Your task to perform on an android device: Show me productivity apps on the Play Store Image 0: 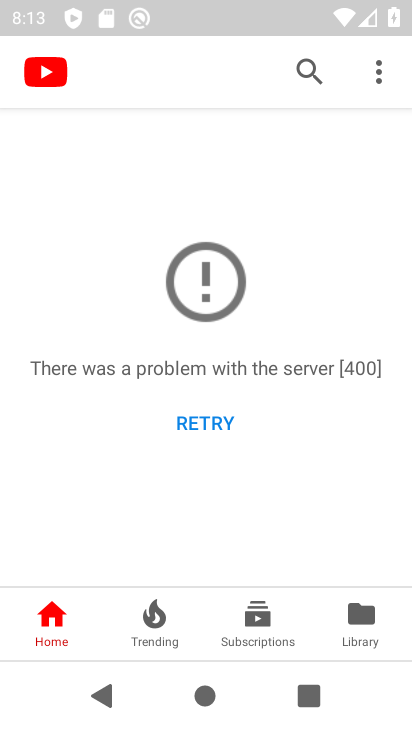
Step 0: press home button
Your task to perform on an android device: Show me productivity apps on the Play Store Image 1: 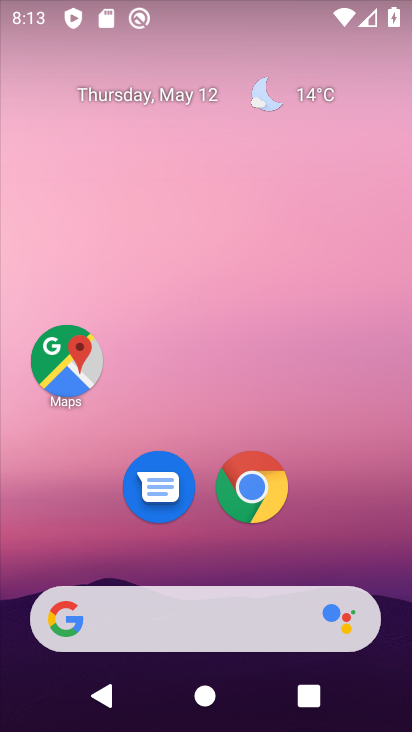
Step 1: drag from (16, 658) to (265, 104)
Your task to perform on an android device: Show me productivity apps on the Play Store Image 2: 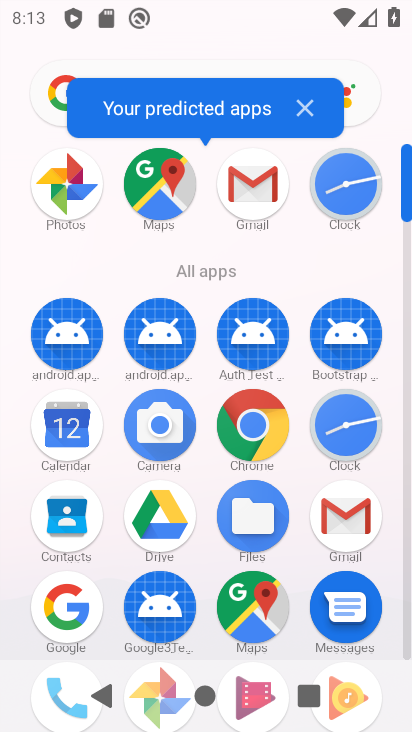
Step 2: drag from (25, 607) to (235, 231)
Your task to perform on an android device: Show me productivity apps on the Play Store Image 3: 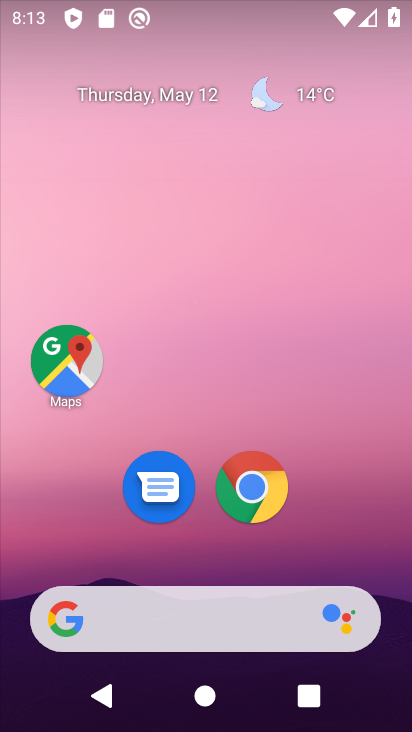
Step 3: drag from (35, 644) to (316, 172)
Your task to perform on an android device: Show me productivity apps on the Play Store Image 4: 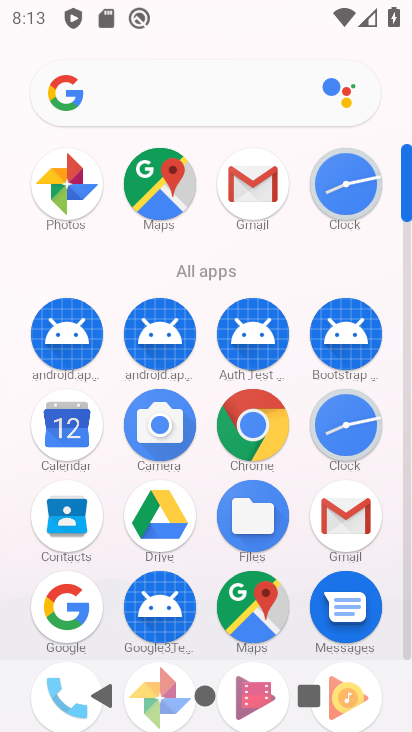
Step 4: drag from (48, 596) to (267, 226)
Your task to perform on an android device: Show me productivity apps on the Play Store Image 5: 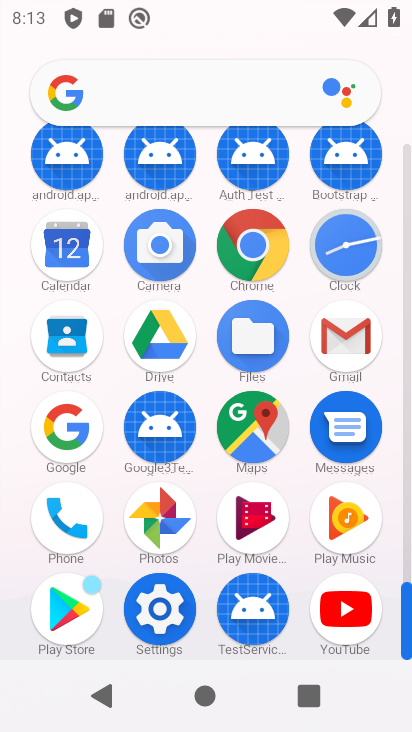
Step 5: click (49, 617)
Your task to perform on an android device: Show me productivity apps on the Play Store Image 6: 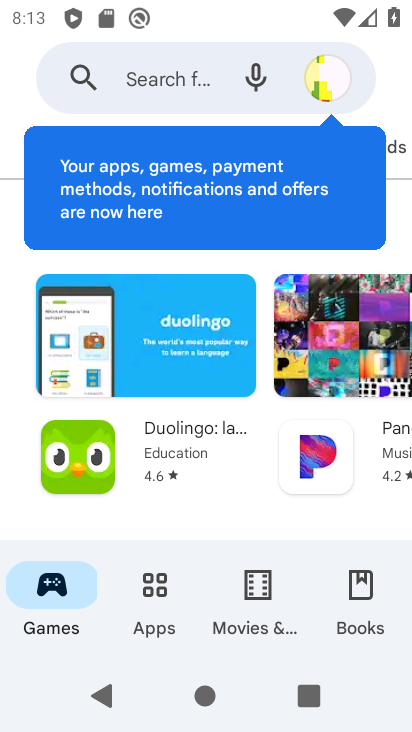
Step 6: click (141, 580)
Your task to perform on an android device: Show me productivity apps on the Play Store Image 7: 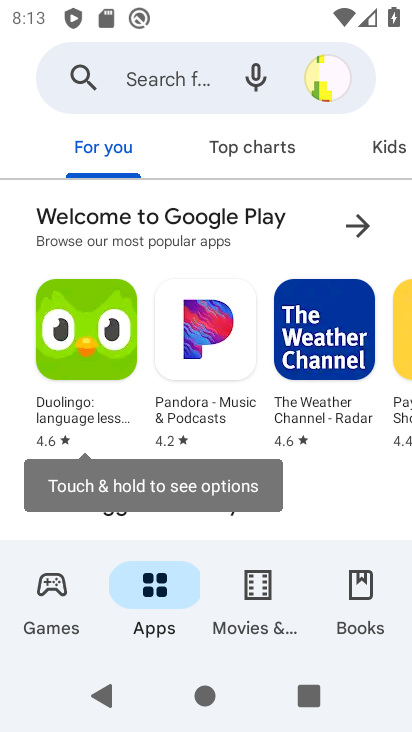
Step 7: task complete